Your task to perform on an android device: See recent photos Image 0: 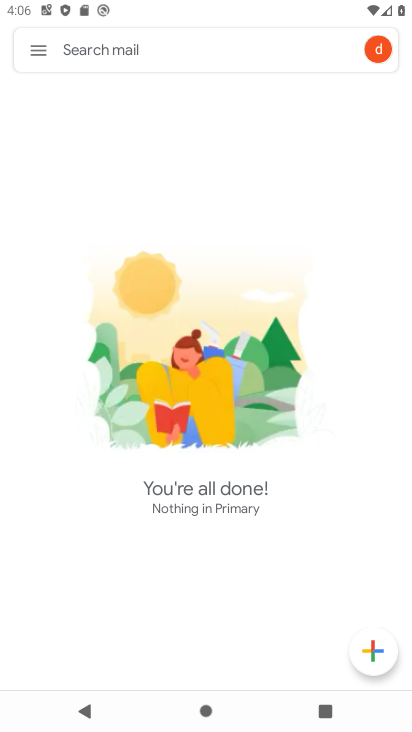
Step 0: press home button
Your task to perform on an android device: See recent photos Image 1: 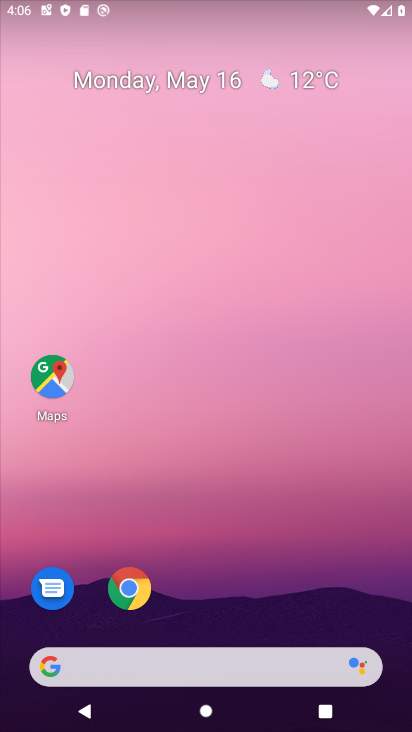
Step 1: drag from (283, 527) to (268, 38)
Your task to perform on an android device: See recent photos Image 2: 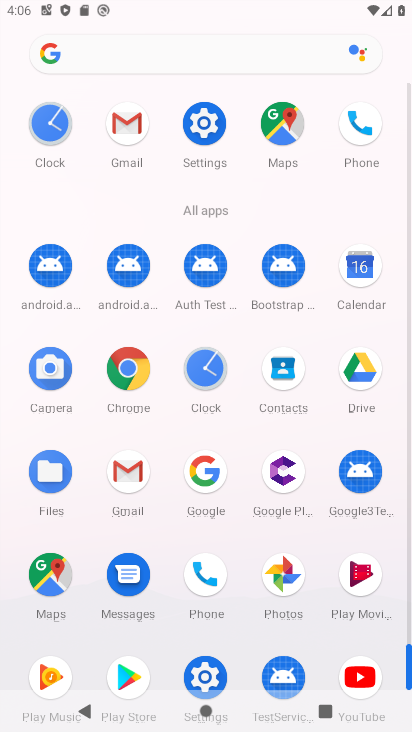
Step 2: click (287, 573)
Your task to perform on an android device: See recent photos Image 3: 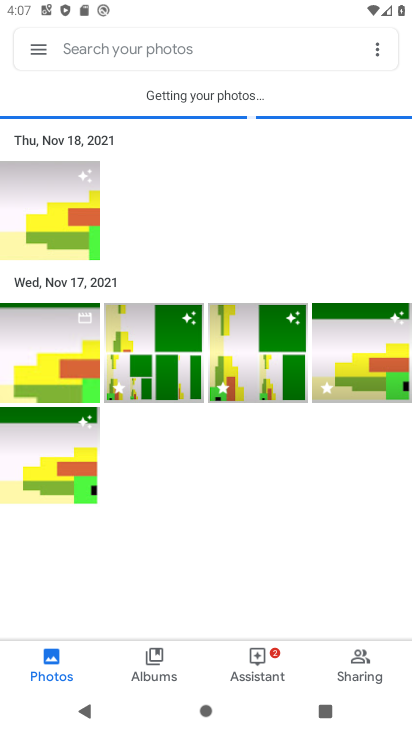
Step 3: click (375, 48)
Your task to perform on an android device: See recent photos Image 4: 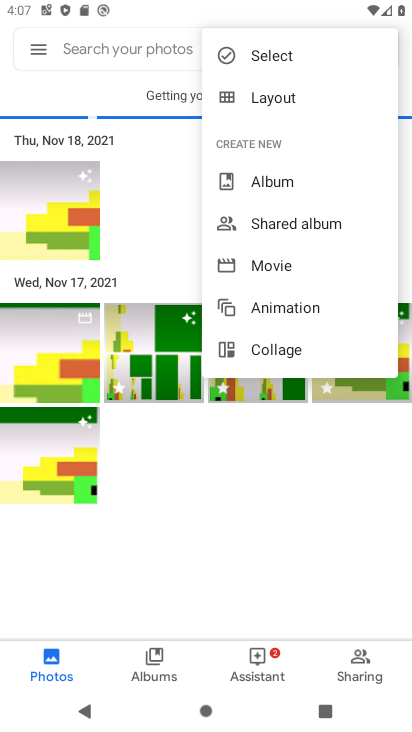
Step 4: drag from (321, 319) to (336, 137)
Your task to perform on an android device: See recent photos Image 5: 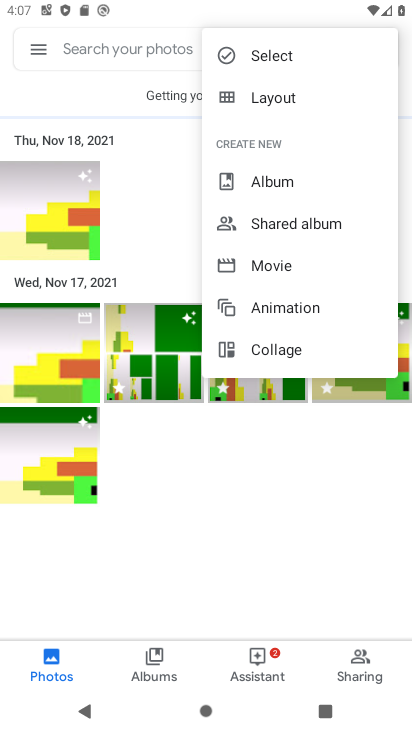
Step 5: click (146, 657)
Your task to perform on an android device: See recent photos Image 6: 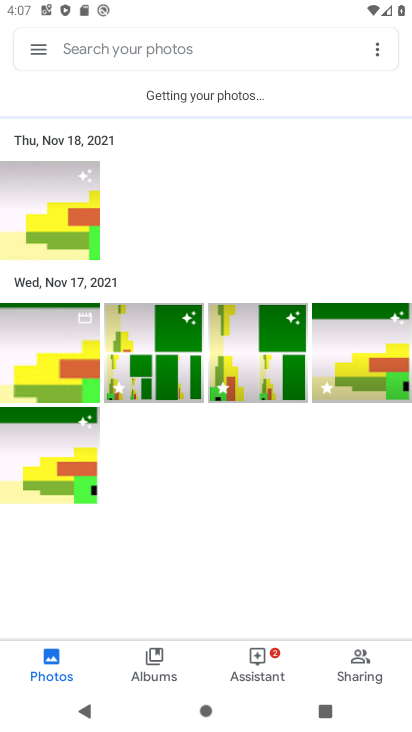
Step 6: click (146, 657)
Your task to perform on an android device: See recent photos Image 7: 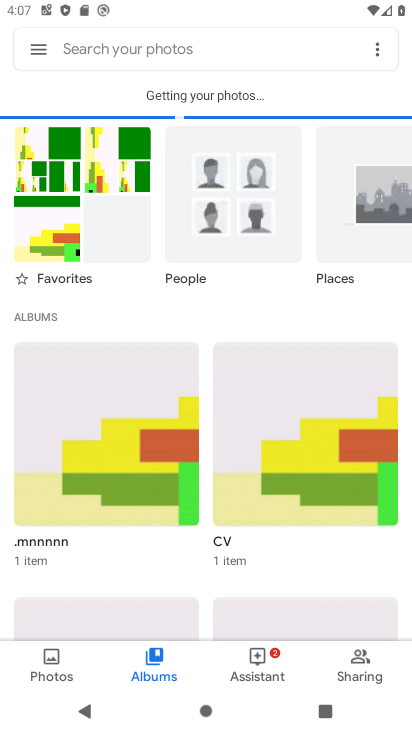
Step 7: drag from (371, 209) to (76, 219)
Your task to perform on an android device: See recent photos Image 8: 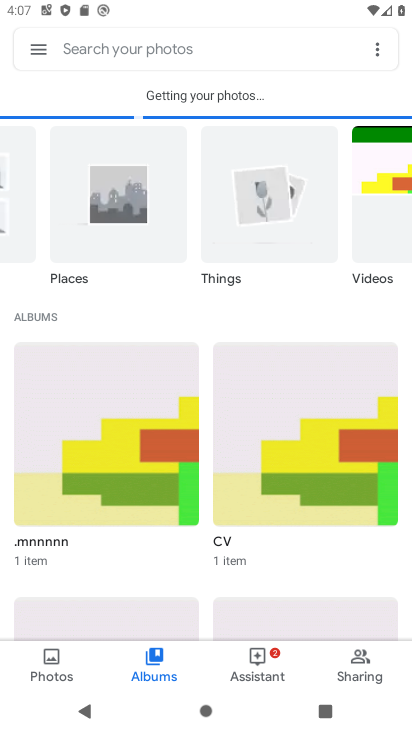
Step 8: drag from (354, 230) to (41, 267)
Your task to perform on an android device: See recent photos Image 9: 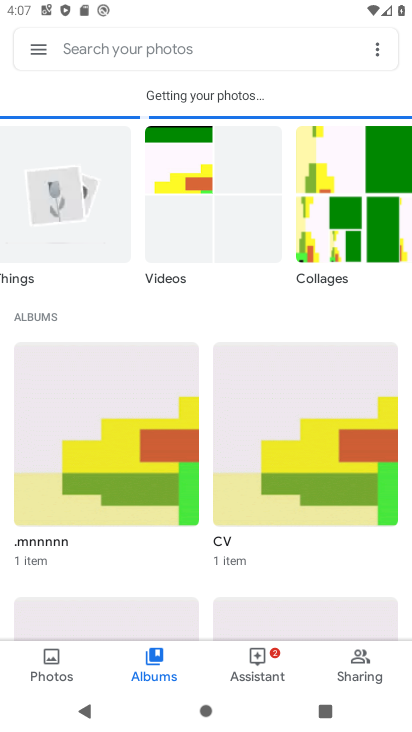
Step 9: drag from (346, 228) to (1, 229)
Your task to perform on an android device: See recent photos Image 10: 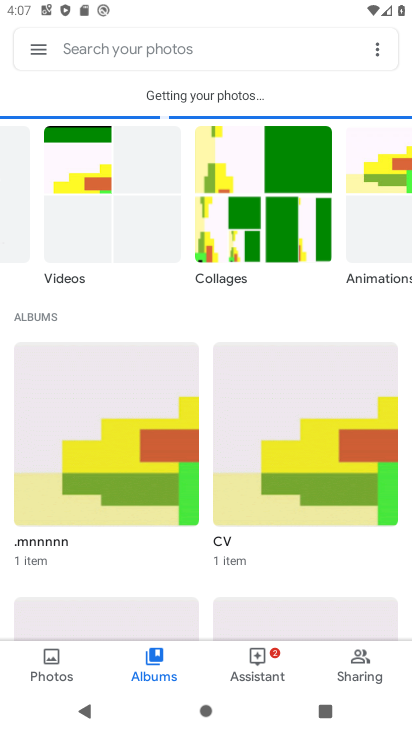
Step 10: drag from (363, 202) to (78, 211)
Your task to perform on an android device: See recent photos Image 11: 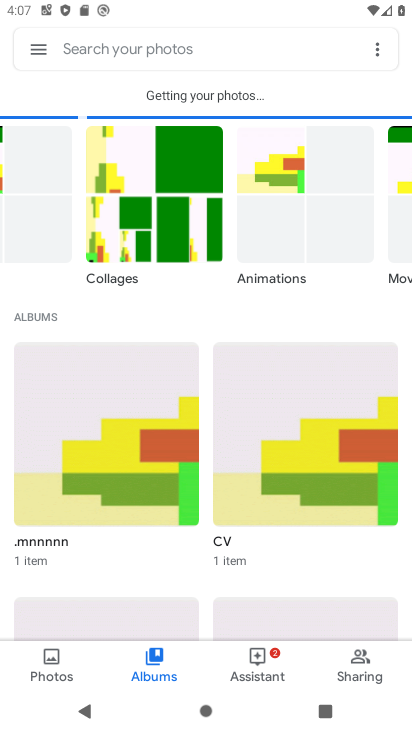
Step 11: drag from (386, 207) to (56, 234)
Your task to perform on an android device: See recent photos Image 12: 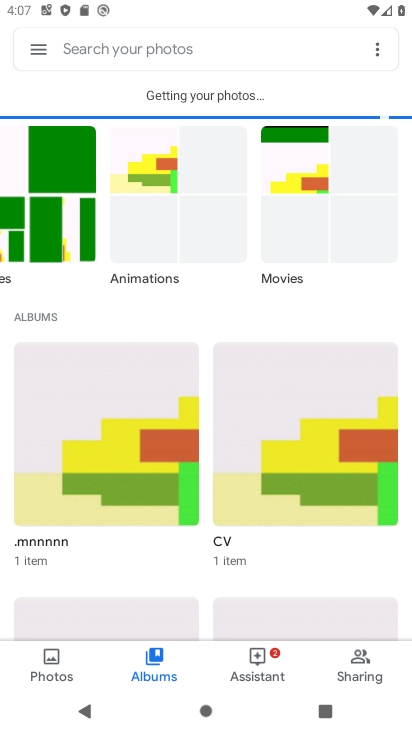
Step 12: click (35, 50)
Your task to perform on an android device: See recent photos Image 13: 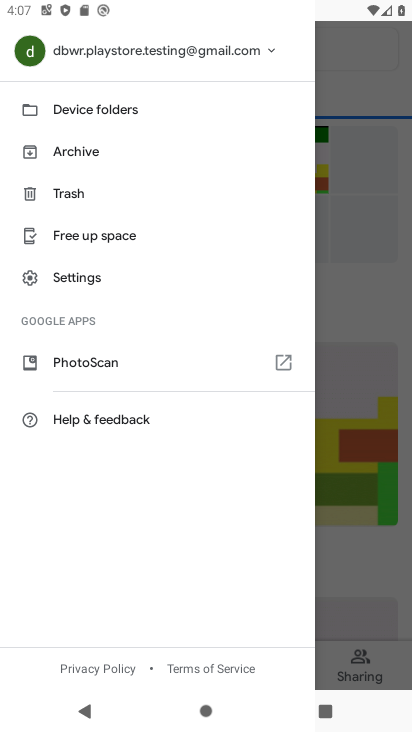
Step 13: click (383, 272)
Your task to perform on an android device: See recent photos Image 14: 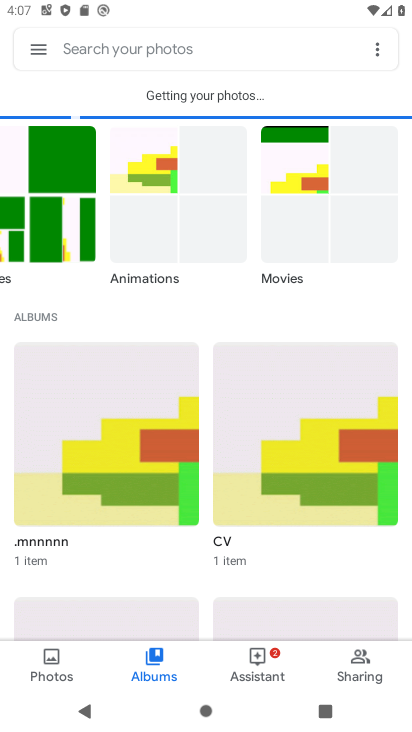
Step 14: drag from (411, 233) to (111, 248)
Your task to perform on an android device: See recent photos Image 15: 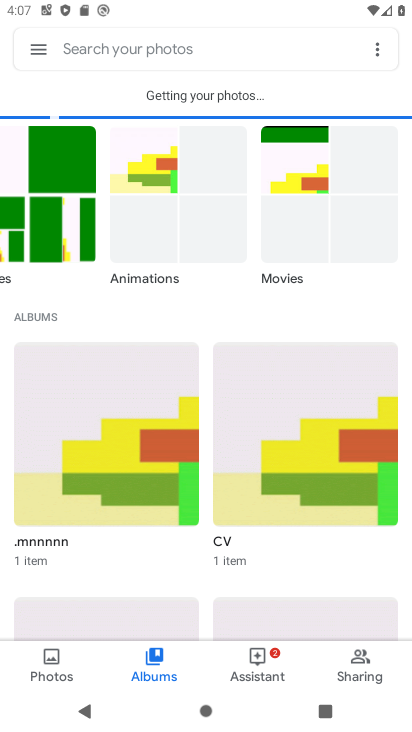
Step 15: drag from (335, 220) to (5, 233)
Your task to perform on an android device: See recent photos Image 16: 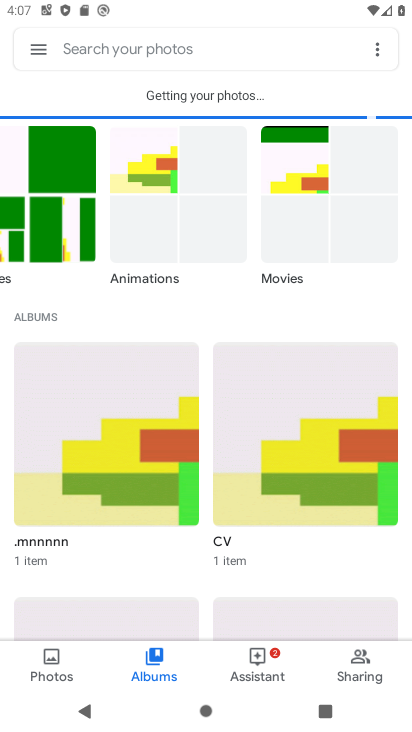
Step 16: click (32, 48)
Your task to perform on an android device: See recent photos Image 17: 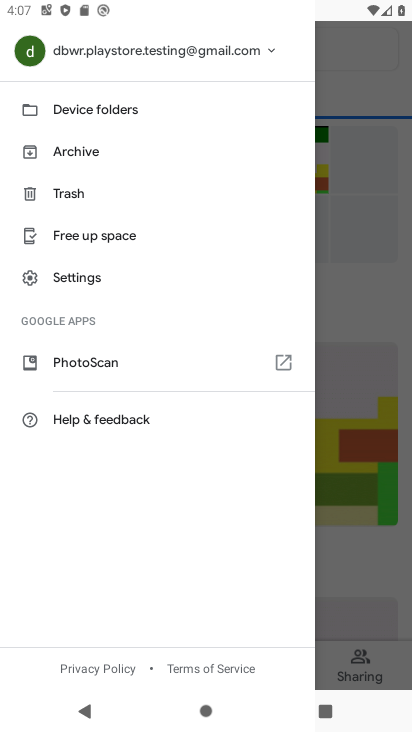
Step 17: click (378, 332)
Your task to perform on an android device: See recent photos Image 18: 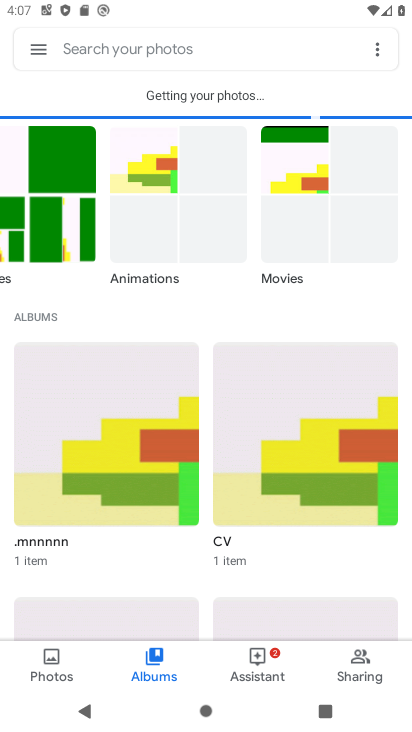
Step 18: task complete